Your task to perform on an android device: Open the stopwatch Image 0: 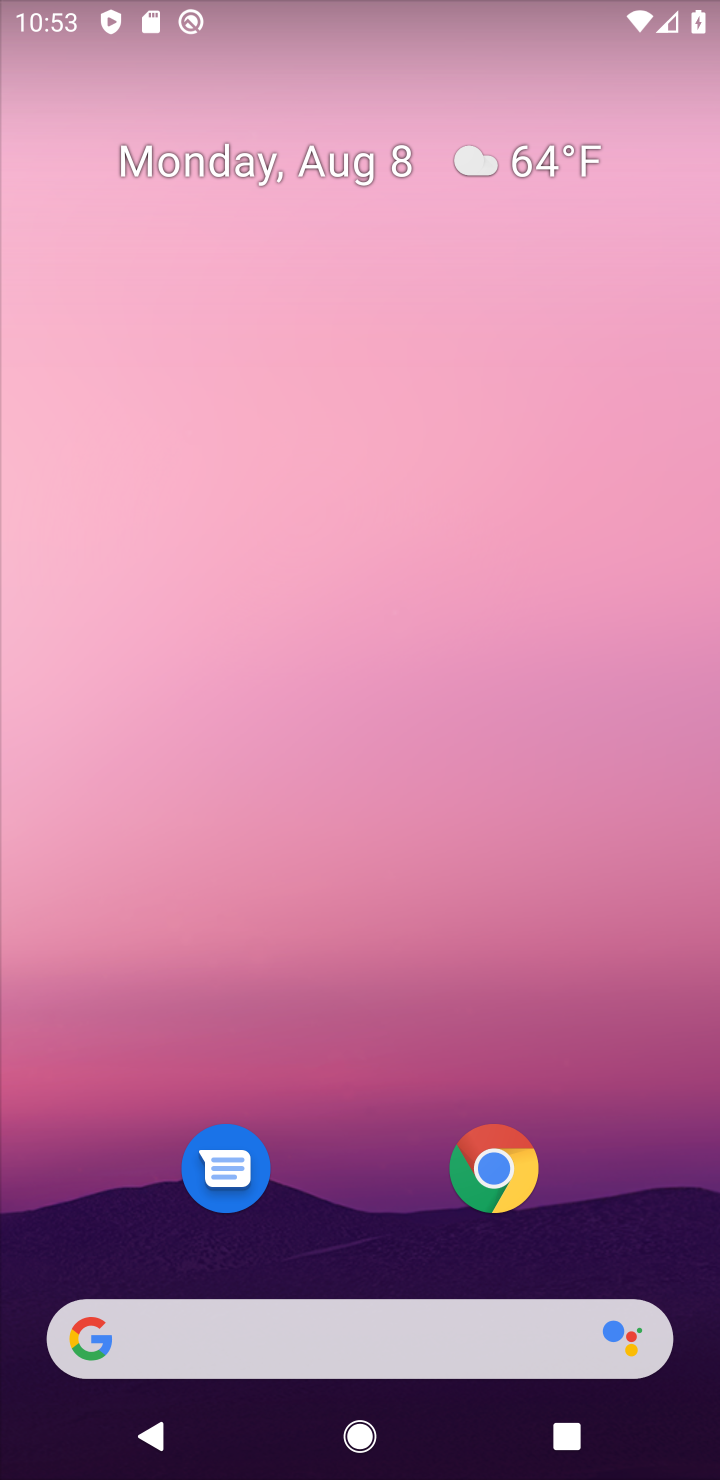
Step 0: drag from (14, 1094) to (376, 280)
Your task to perform on an android device: Open the stopwatch Image 1: 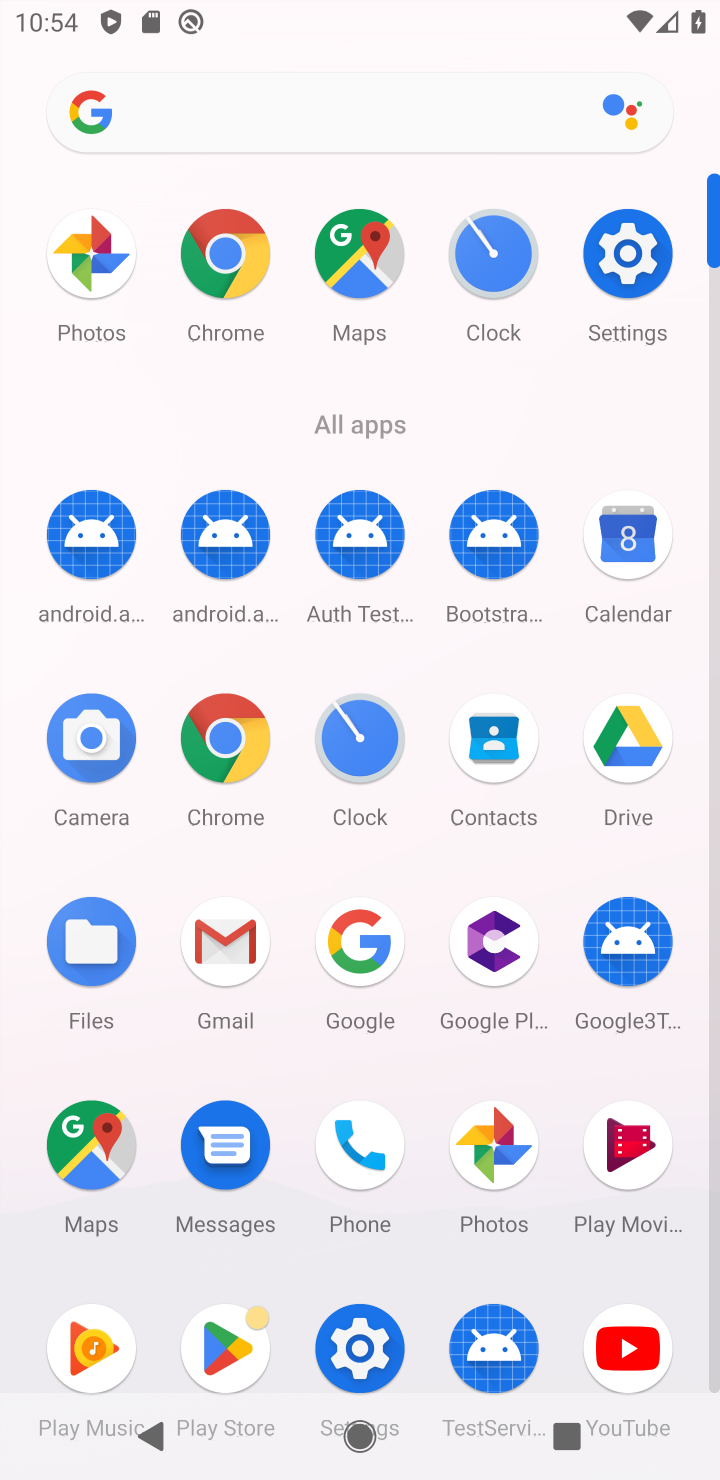
Step 1: click (489, 260)
Your task to perform on an android device: Open the stopwatch Image 2: 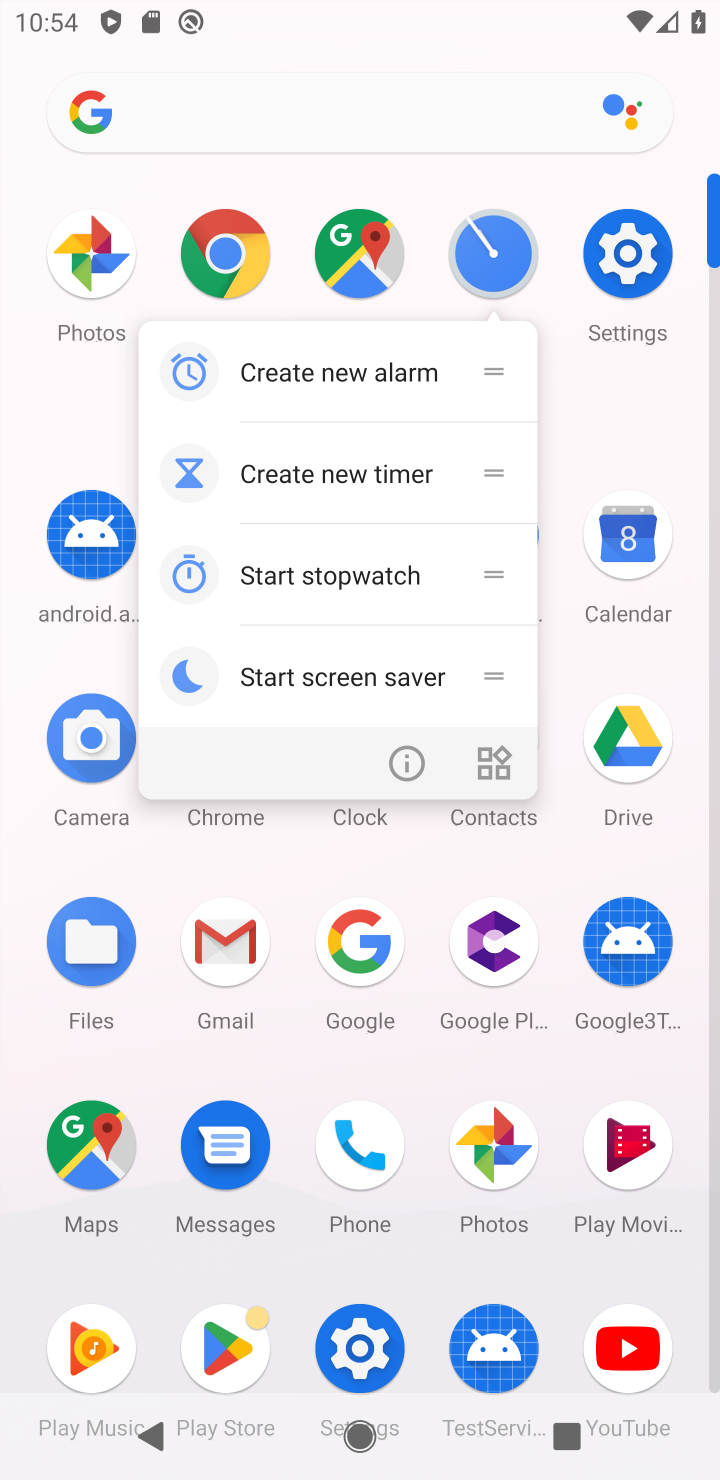
Step 2: click (492, 252)
Your task to perform on an android device: Open the stopwatch Image 3: 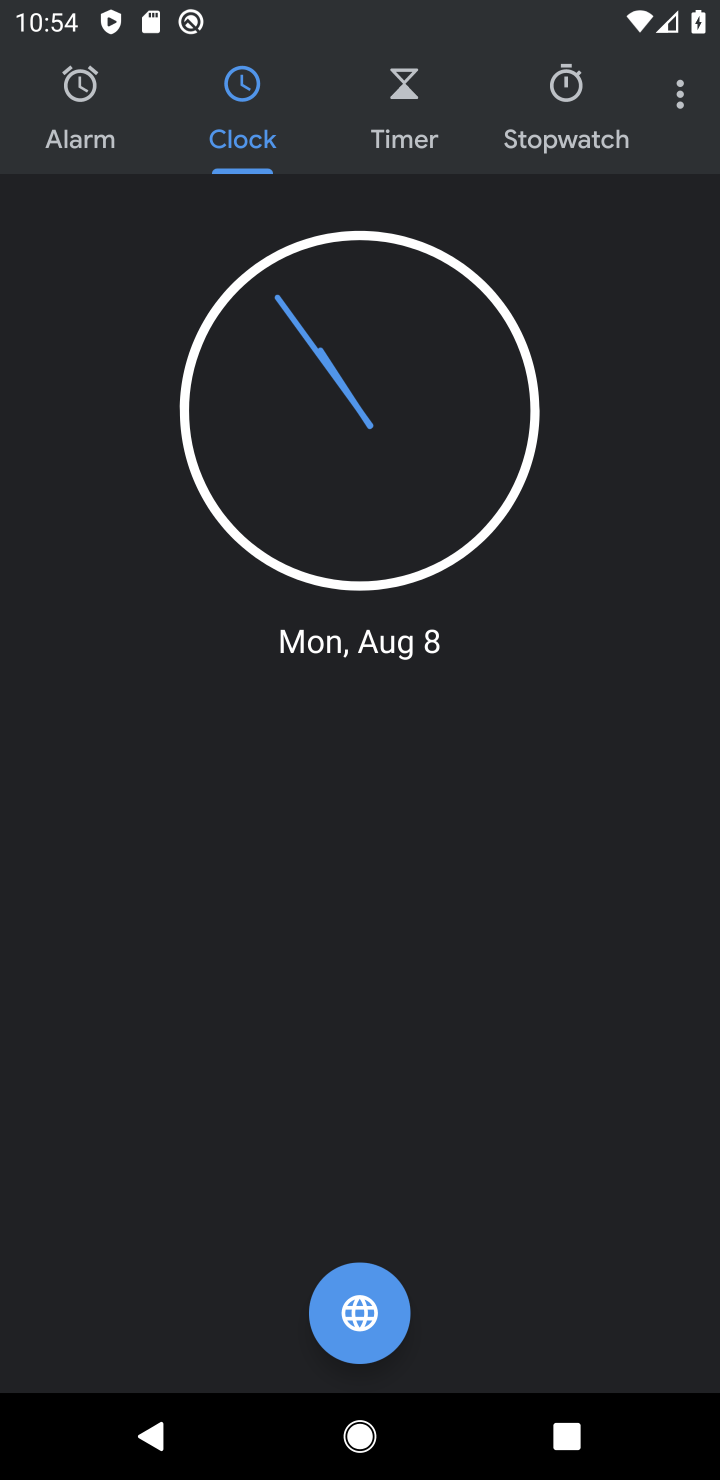
Step 3: click (595, 141)
Your task to perform on an android device: Open the stopwatch Image 4: 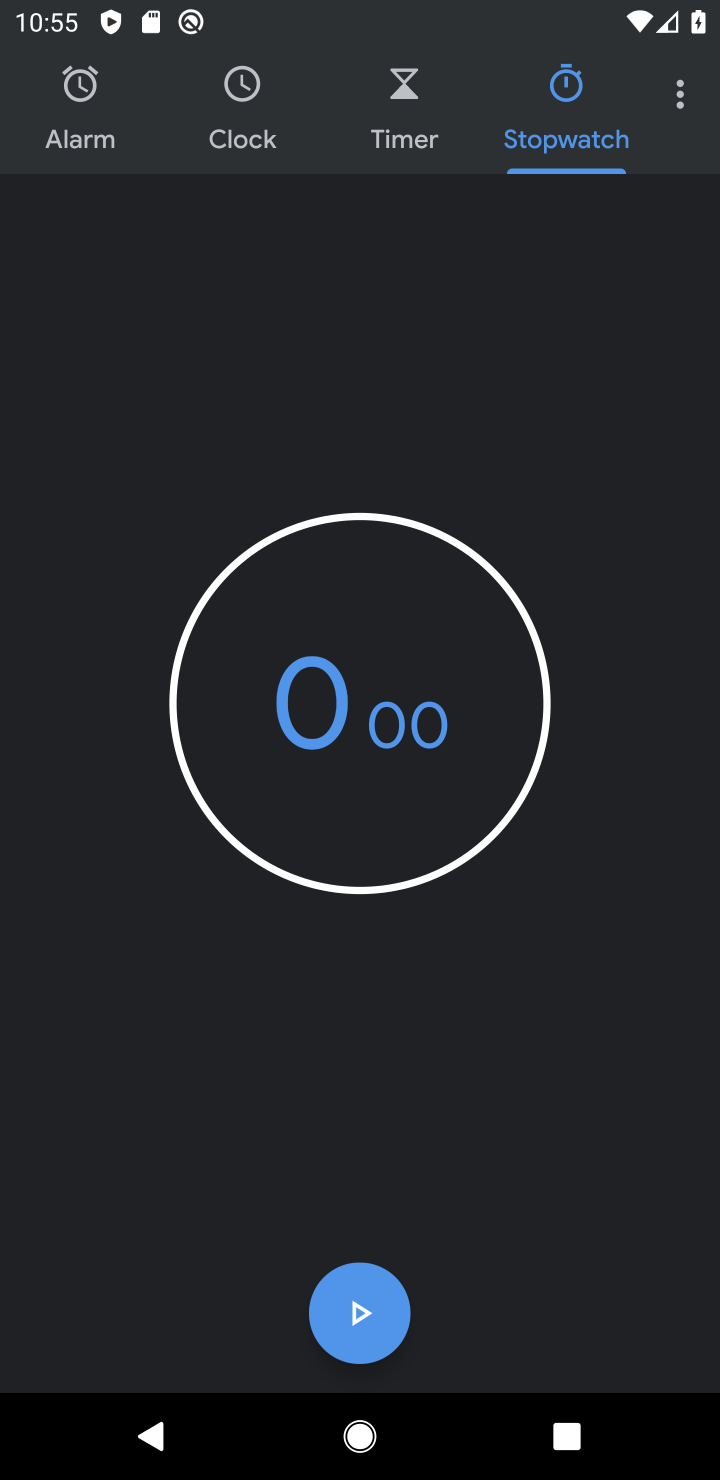
Step 4: task complete